Your task to perform on an android device: toggle location history Image 0: 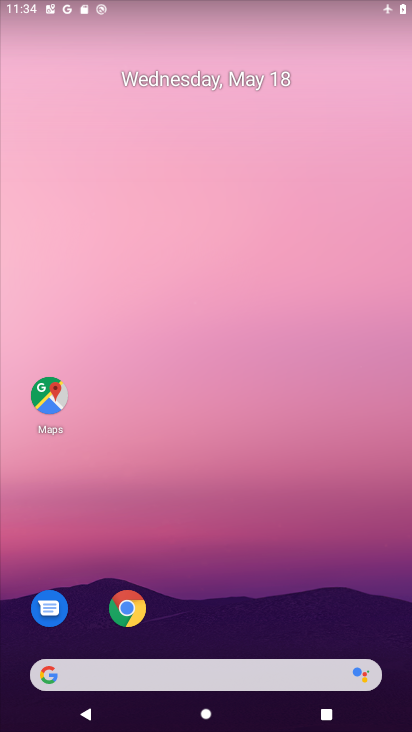
Step 0: drag from (217, 588) to (128, 94)
Your task to perform on an android device: toggle location history Image 1: 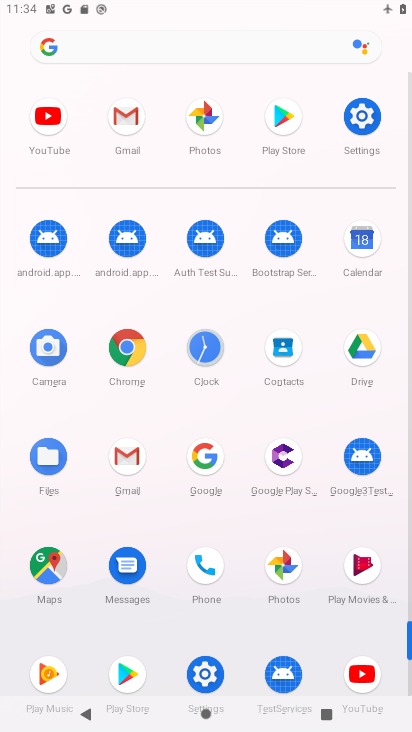
Step 1: click (358, 124)
Your task to perform on an android device: toggle location history Image 2: 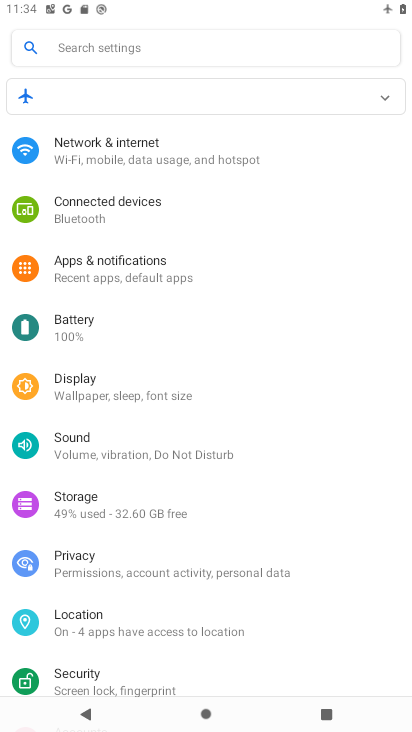
Step 2: click (111, 617)
Your task to perform on an android device: toggle location history Image 3: 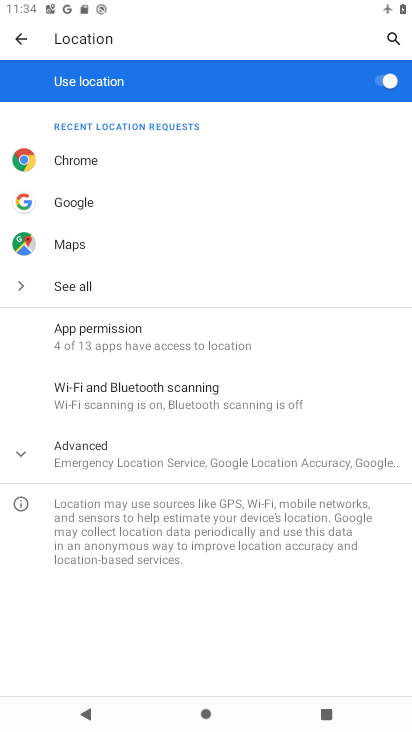
Step 3: click (174, 459)
Your task to perform on an android device: toggle location history Image 4: 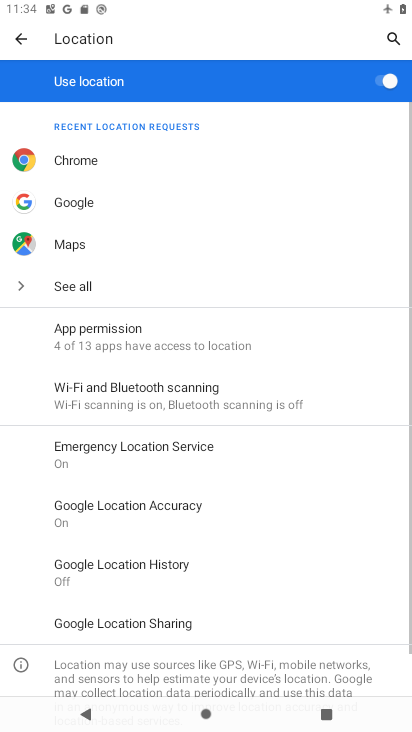
Step 4: click (109, 570)
Your task to perform on an android device: toggle location history Image 5: 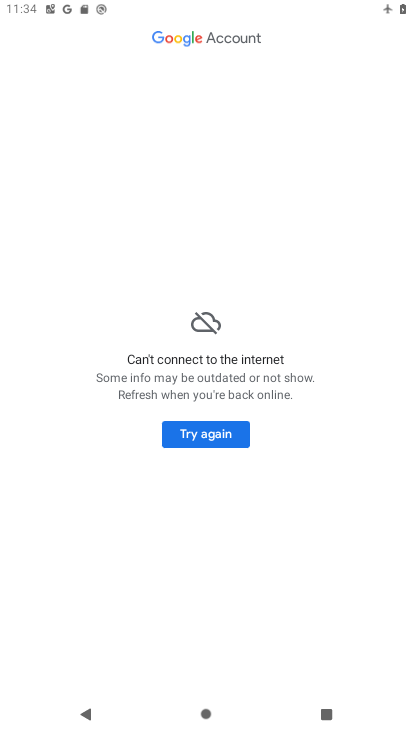
Step 5: click (200, 438)
Your task to perform on an android device: toggle location history Image 6: 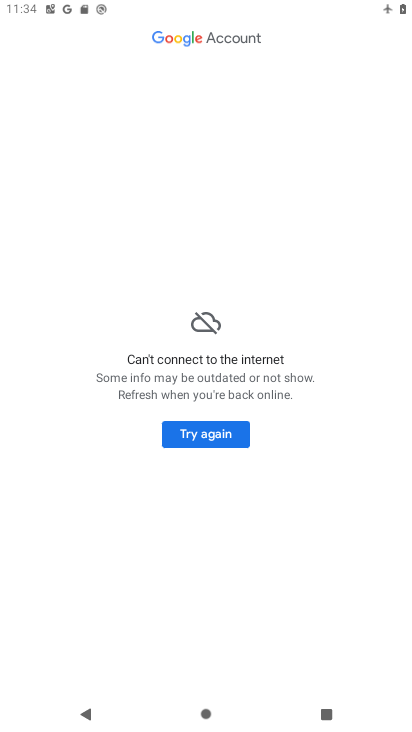
Step 6: click (200, 438)
Your task to perform on an android device: toggle location history Image 7: 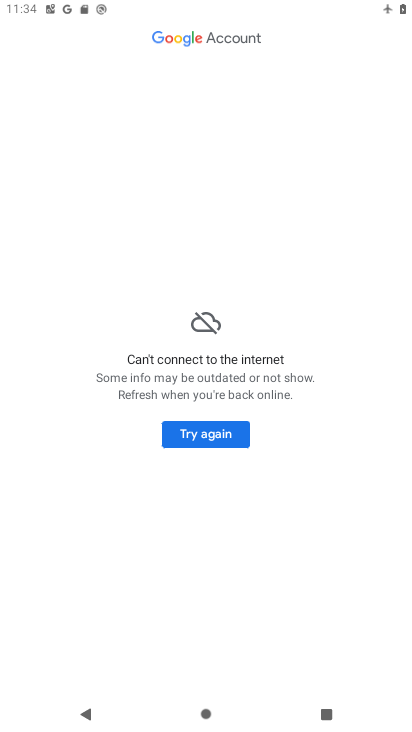
Step 7: task complete